Your task to perform on an android device: Show me the alarms in the clock app Image 0: 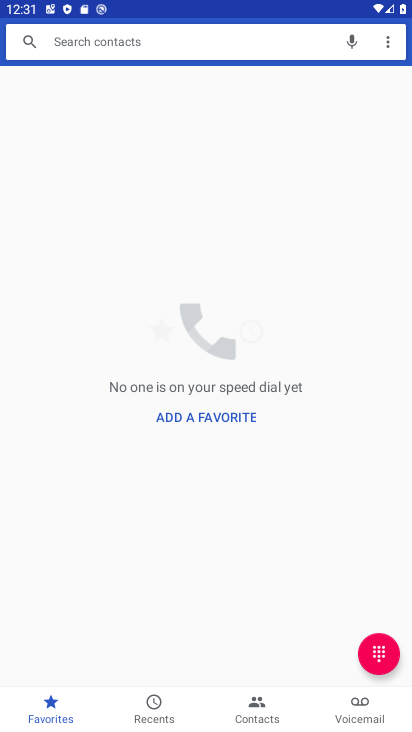
Step 0: press home button
Your task to perform on an android device: Show me the alarms in the clock app Image 1: 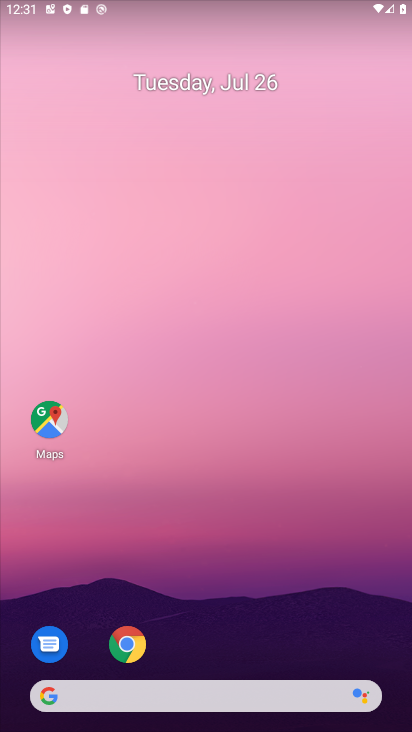
Step 1: drag from (231, 655) to (233, 238)
Your task to perform on an android device: Show me the alarms in the clock app Image 2: 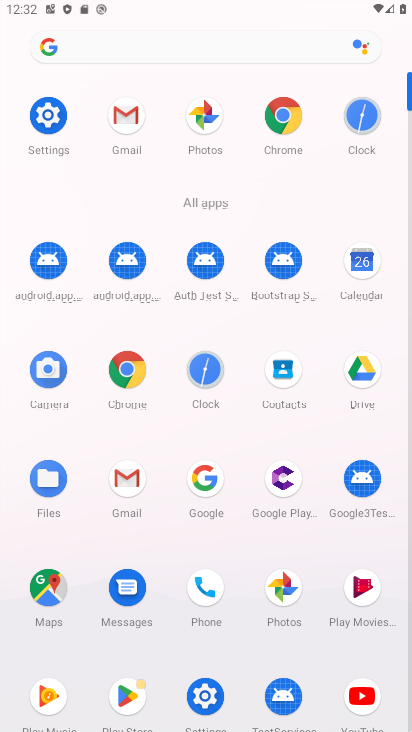
Step 2: click (205, 365)
Your task to perform on an android device: Show me the alarms in the clock app Image 3: 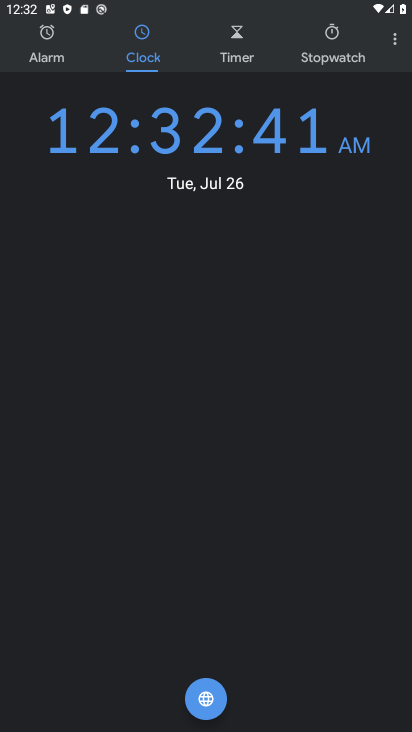
Step 3: click (396, 41)
Your task to perform on an android device: Show me the alarms in the clock app Image 4: 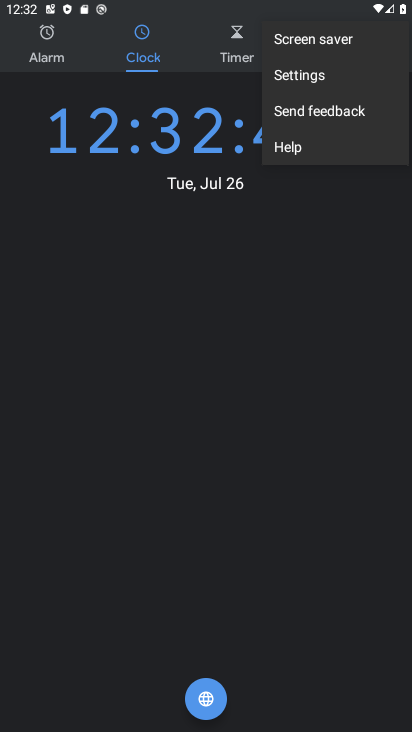
Step 4: click (318, 79)
Your task to perform on an android device: Show me the alarms in the clock app Image 5: 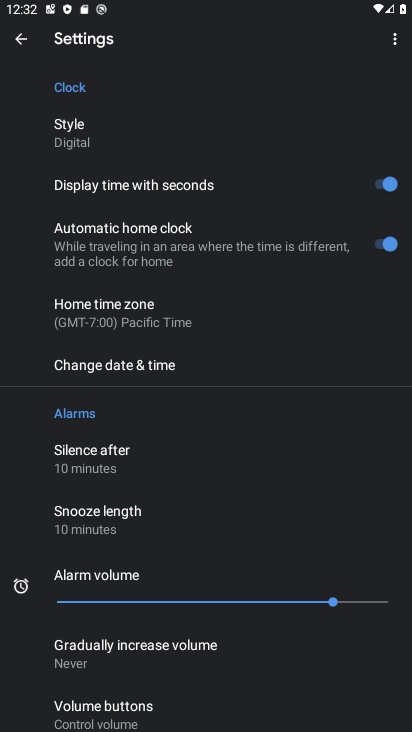
Step 5: click (19, 31)
Your task to perform on an android device: Show me the alarms in the clock app Image 6: 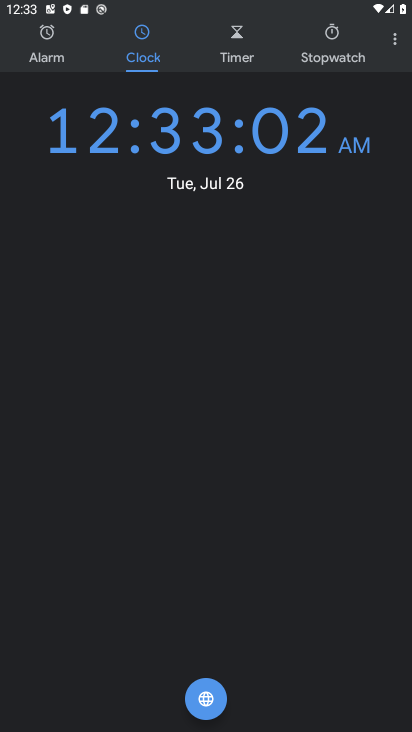
Step 6: click (45, 44)
Your task to perform on an android device: Show me the alarms in the clock app Image 7: 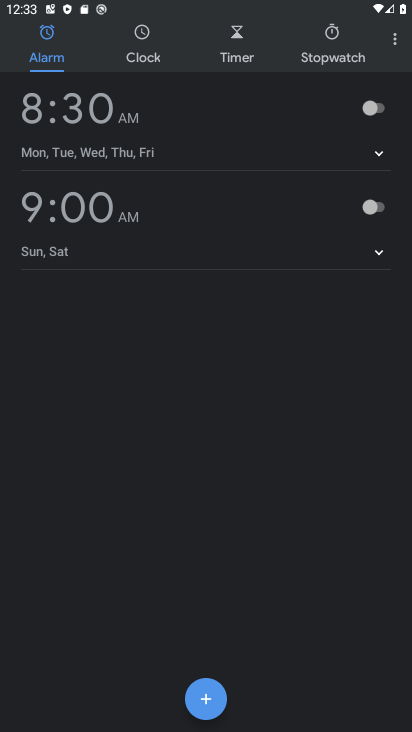
Step 7: click (388, 108)
Your task to perform on an android device: Show me the alarms in the clock app Image 8: 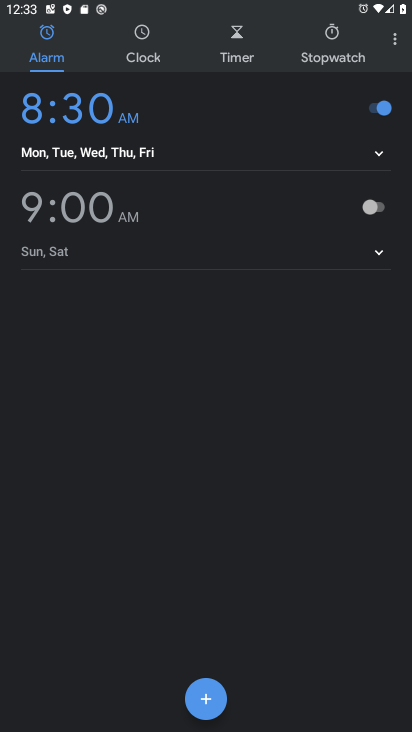
Step 8: task complete